Your task to perform on an android device: toggle location history Image 0: 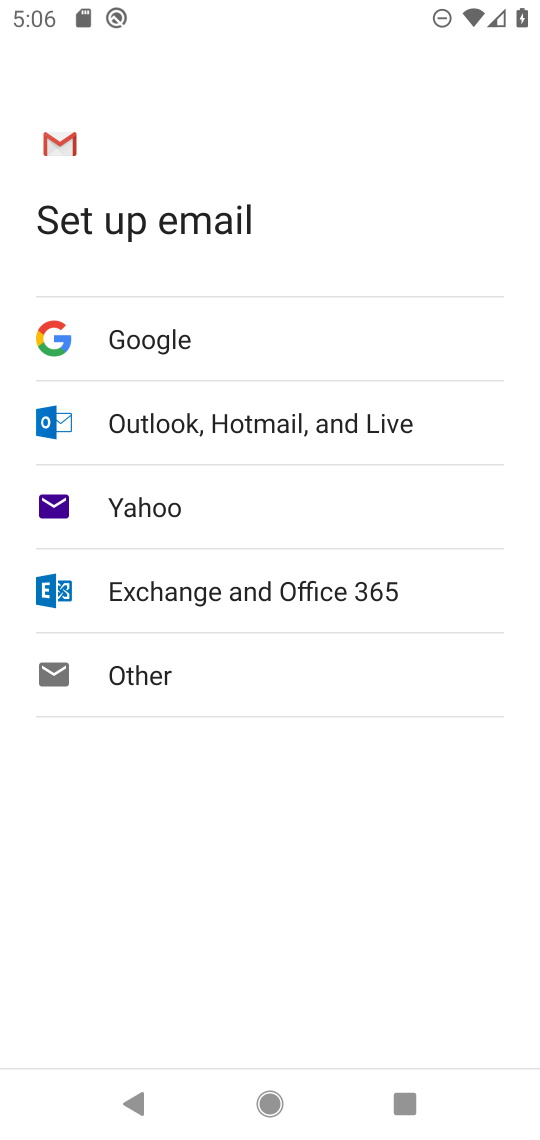
Step 0: press home button
Your task to perform on an android device: toggle location history Image 1: 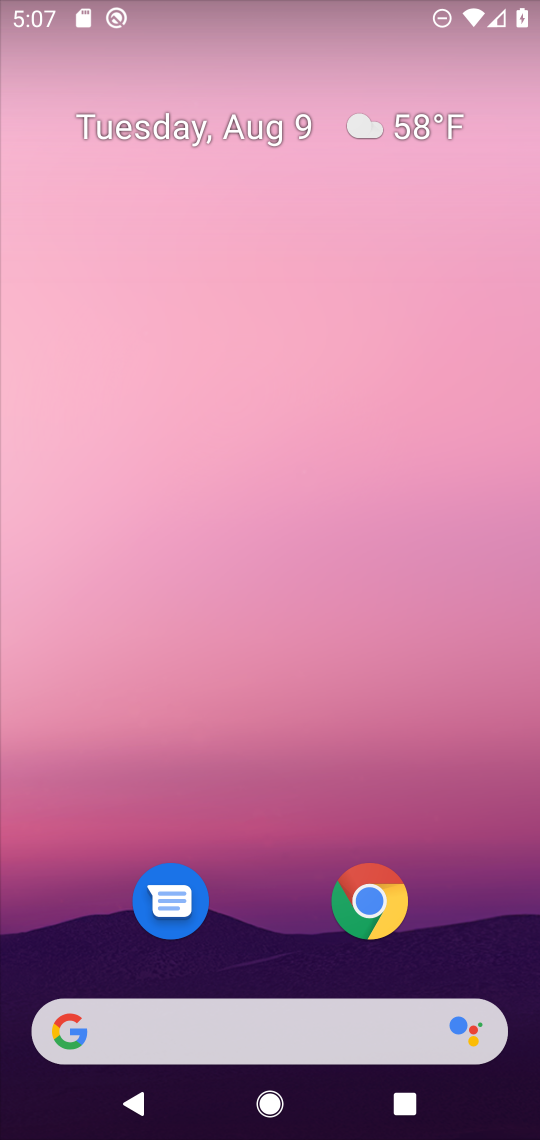
Step 1: drag from (242, 947) to (335, 295)
Your task to perform on an android device: toggle location history Image 2: 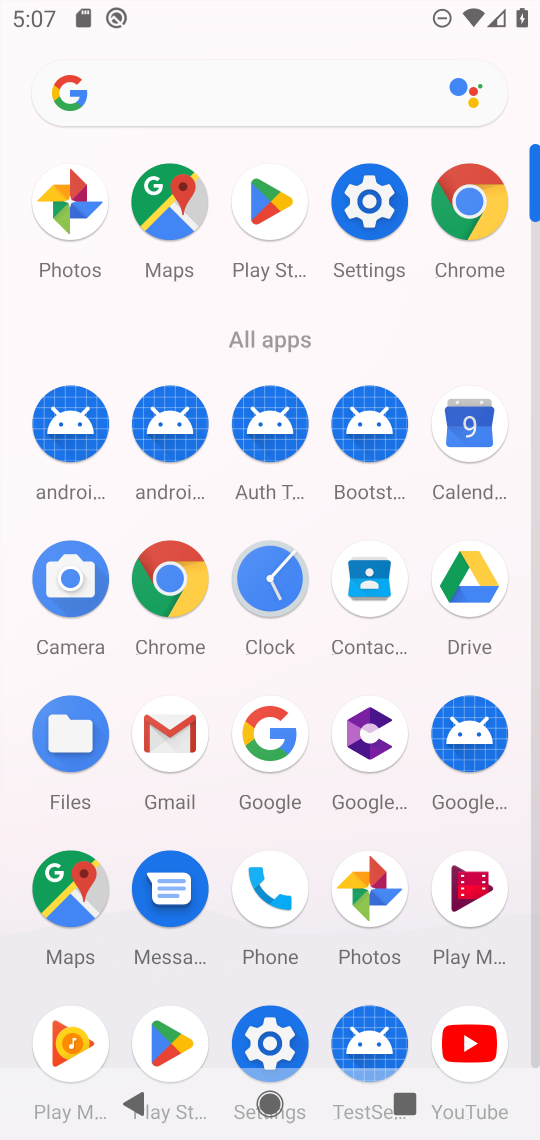
Step 2: drag from (305, 1018) to (353, 301)
Your task to perform on an android device: toggle location history Image 3: 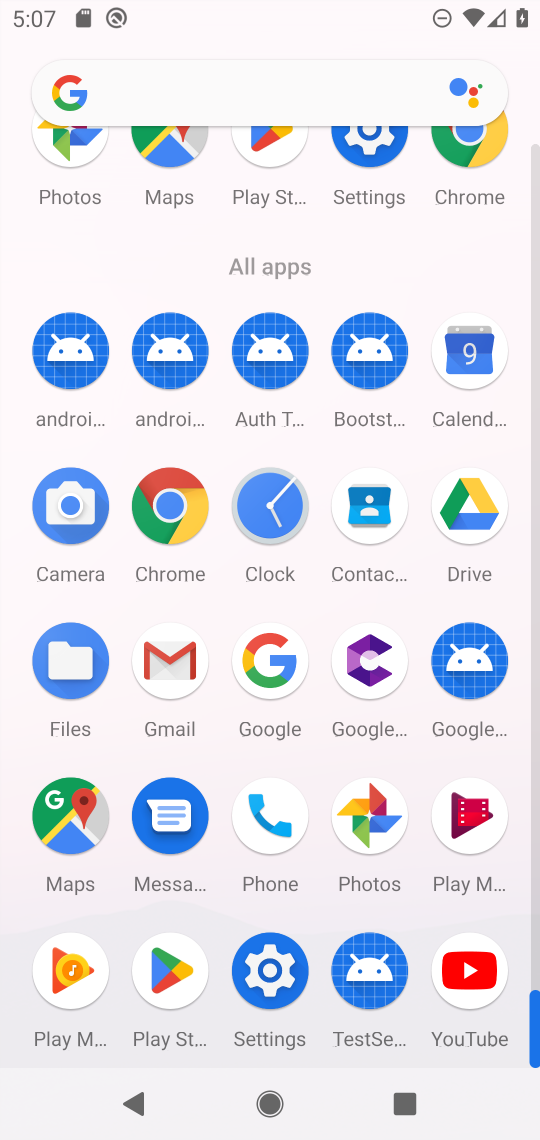
Step 3: click (53, 823)
Your task to perform on an android device: toggle location history Image 4: 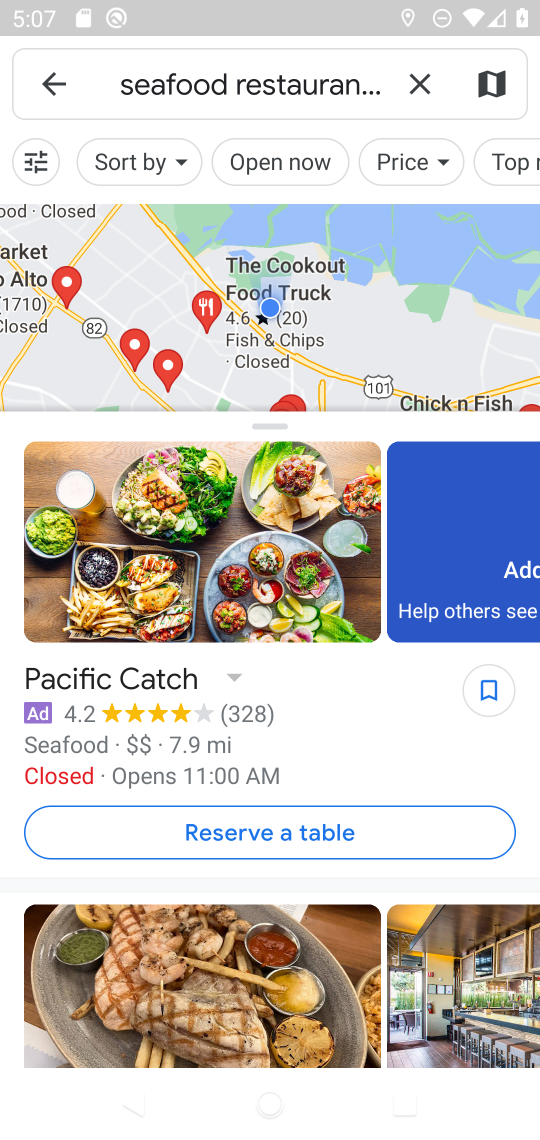
Step 4: click (421, 77)
Your task to perform on an android device: toggle location history Image 5: 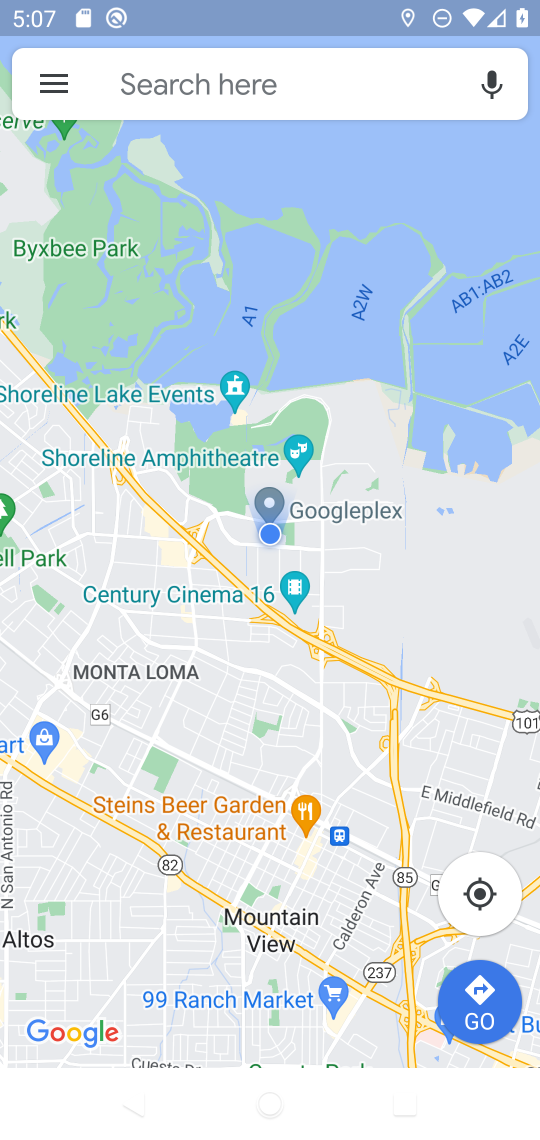
Step 5: click (43, 76)
Your task to perform on an android device: toggle location history Image 6: 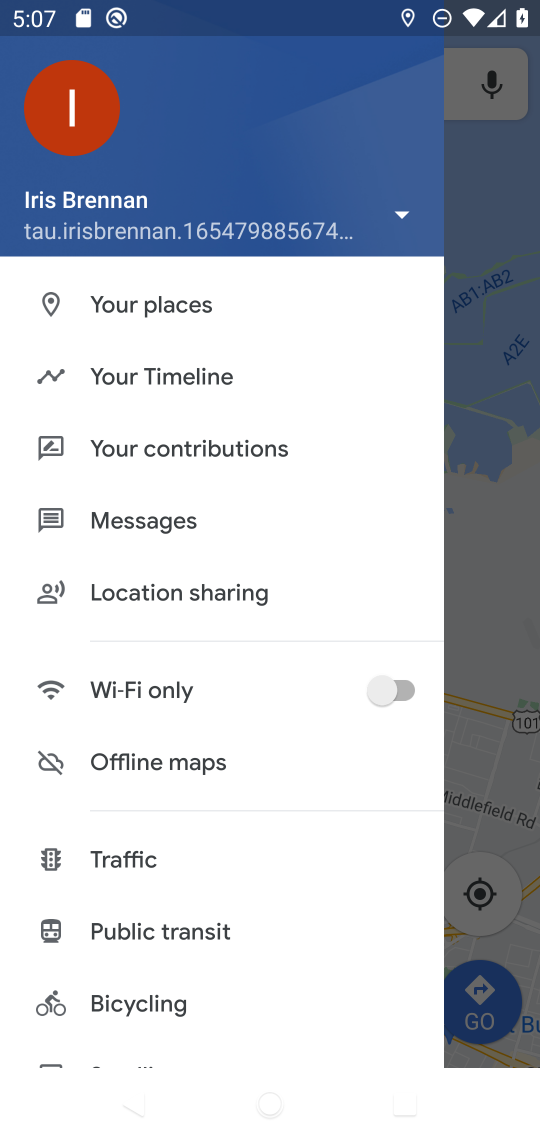
Step 6: click (184, 374)
Your task to perform on an android device: toggle location history Image 7: 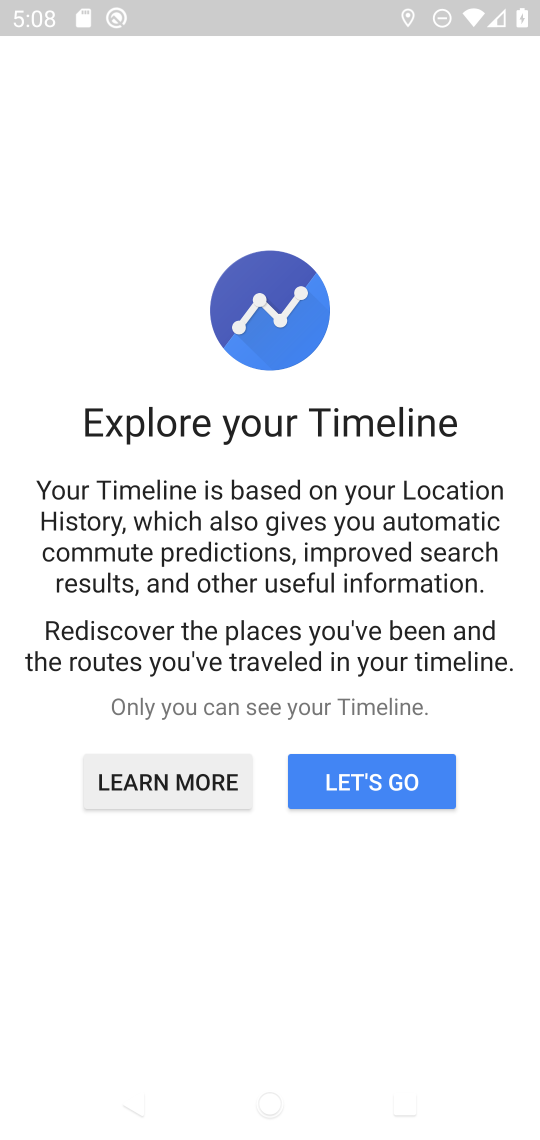
Step 7: click (411, 794)
Your task to perform on an android device: toggle location history Image 8: 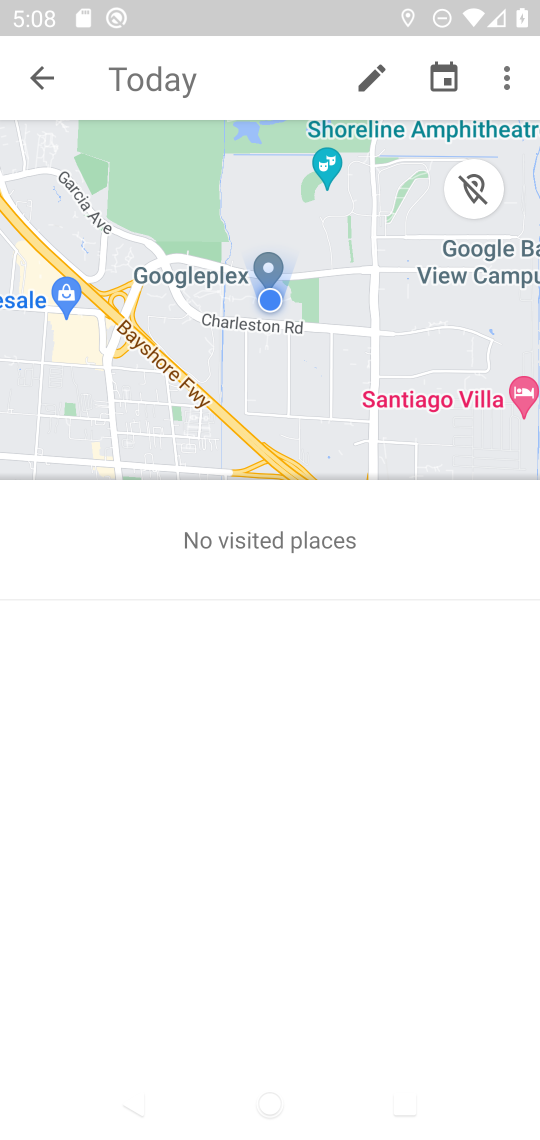
Step 8: click (509, 79)
Your task to perform on an android device: toggle location history Image 9: 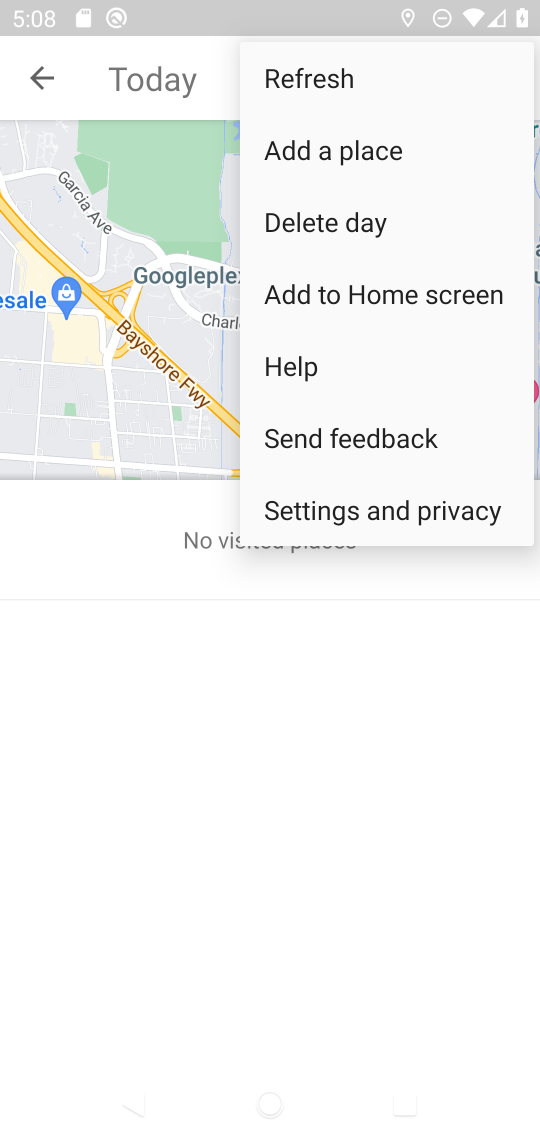
Step 9: click (410, 504)
Your task to perform on an android device: toggle location history Image 10: 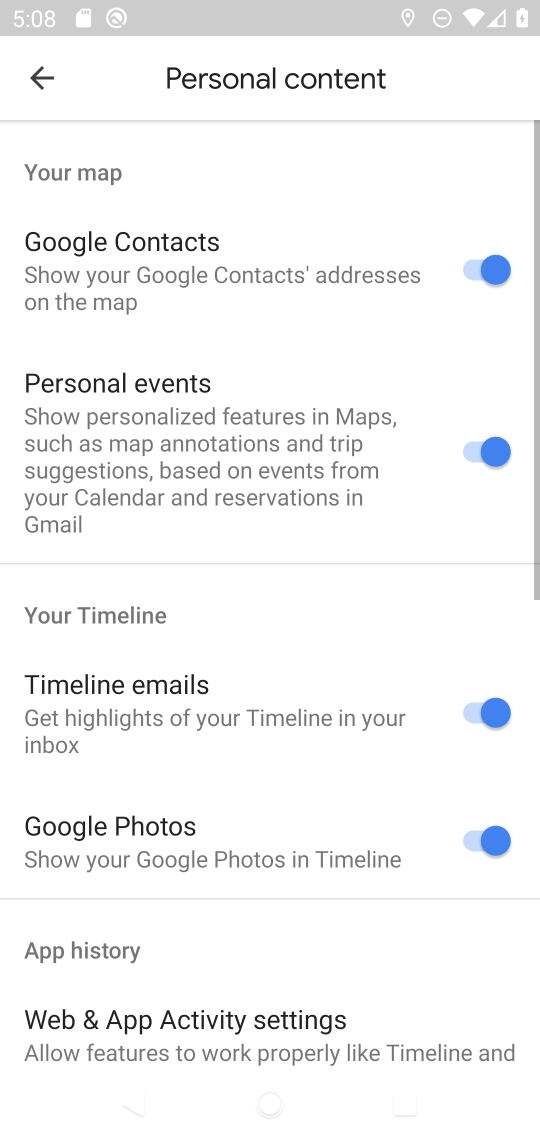
Step 10: drag from (184, 854) to (209, 287)
Your task to perform on an android device: toggle location history Image 11: 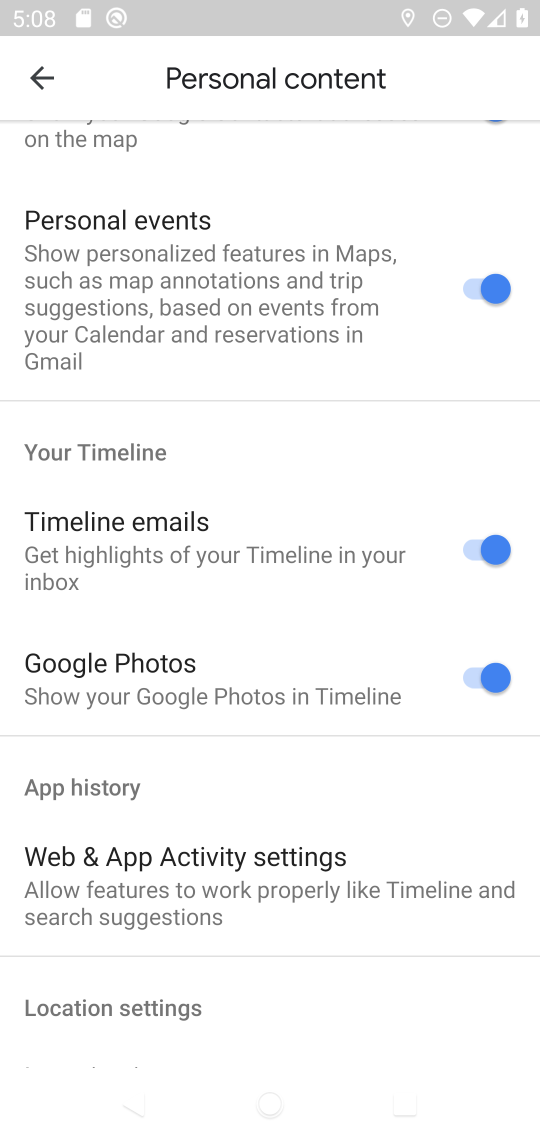
Step 11: drag from (175, 833) to (199, 379)
Your task to perform on an android device: toggle location history Image 12: 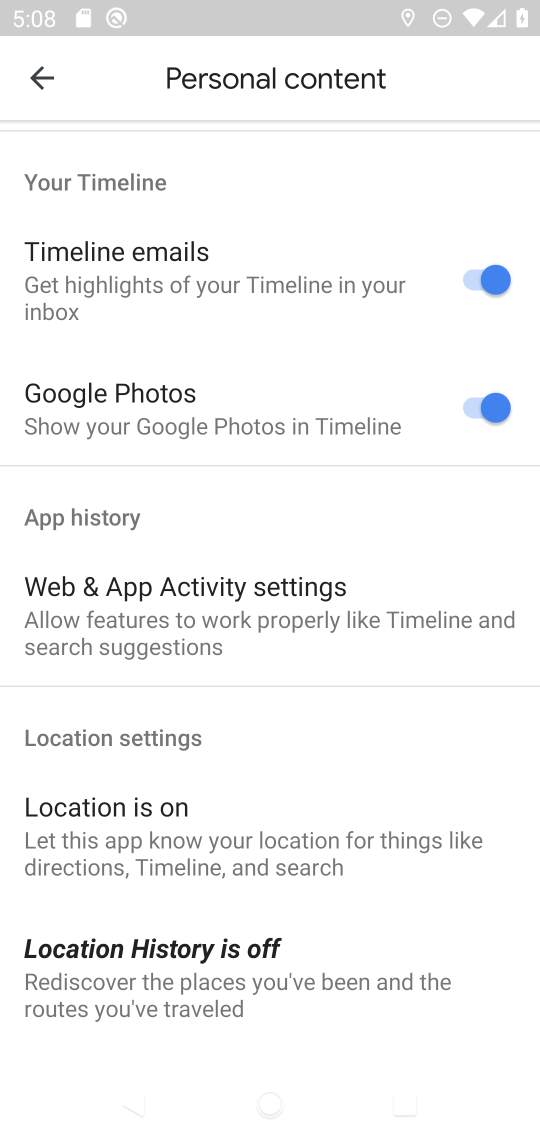
Step 12: click (188, 984)
Your task to perform on an android device: toggle location history Image 13: 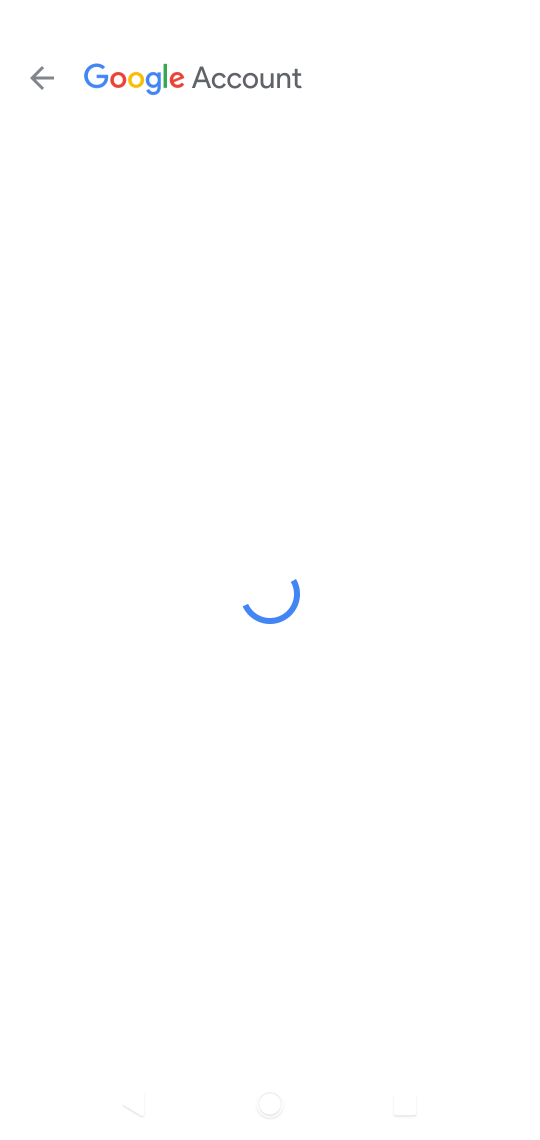
Step 13: click (188, 984)
Your task to perform on an android device: toggle location history Image 14: 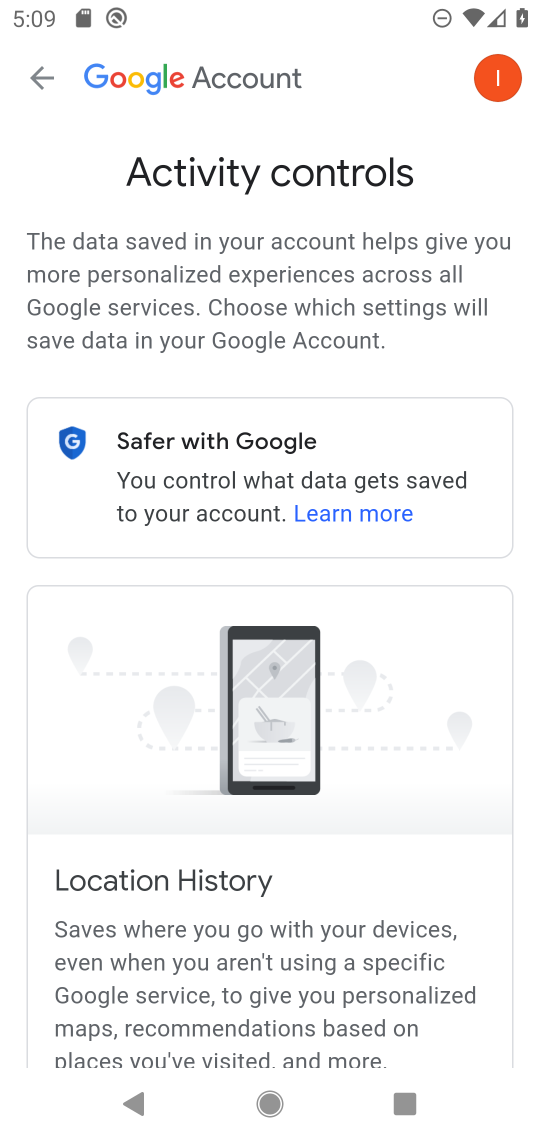
Step 14: drag from (291, 866) to (342, 326)
Your task to perform on an android device: toggle location history Image 15: 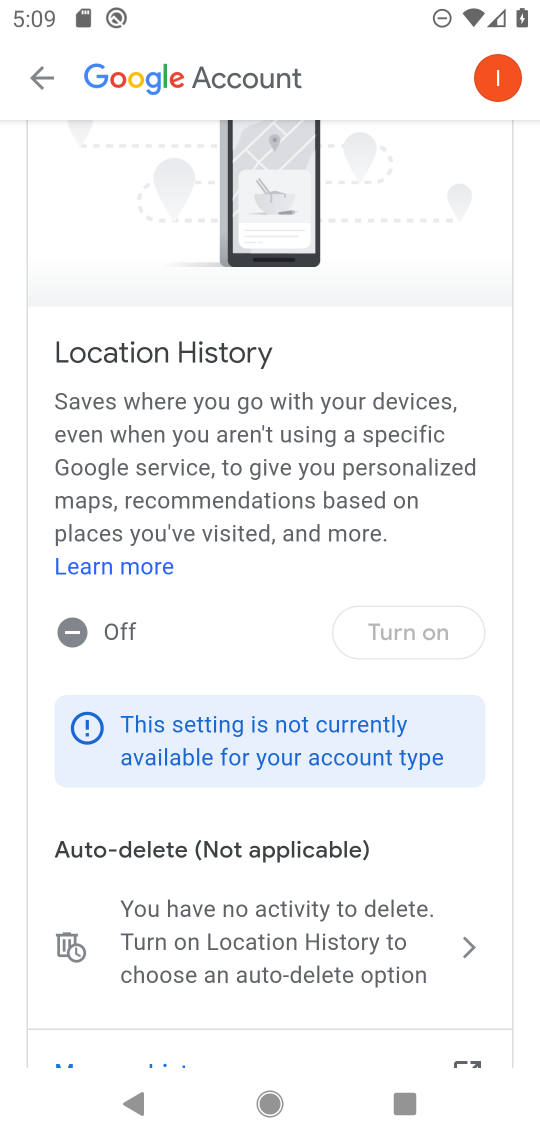
Step 15: drag from (301, 929) to (357, 383)
Your task to perform on an android device: toggle location history Image 16: 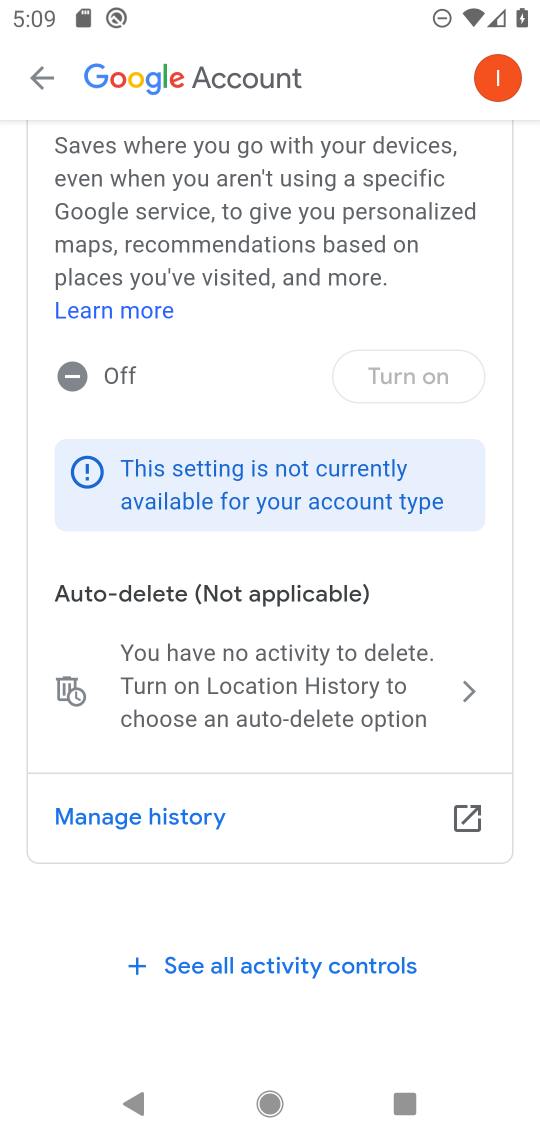
Step 16: click (445, 371)
Your task to perform on an android device: toggle location history Image 17: 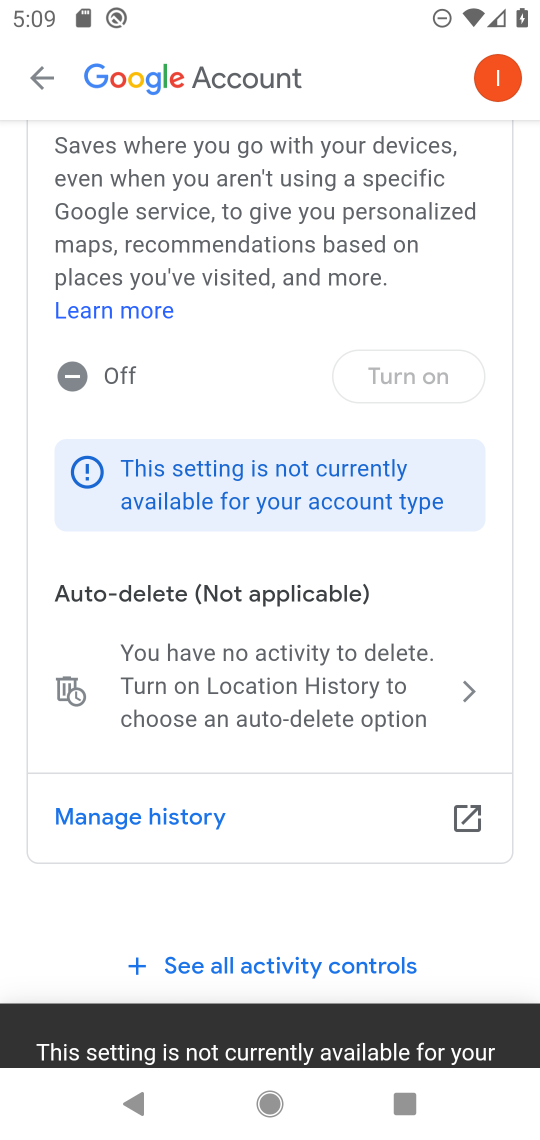
Step 17: click (413, 361)
Your task to perform on an android device: toggle location history Image 18: 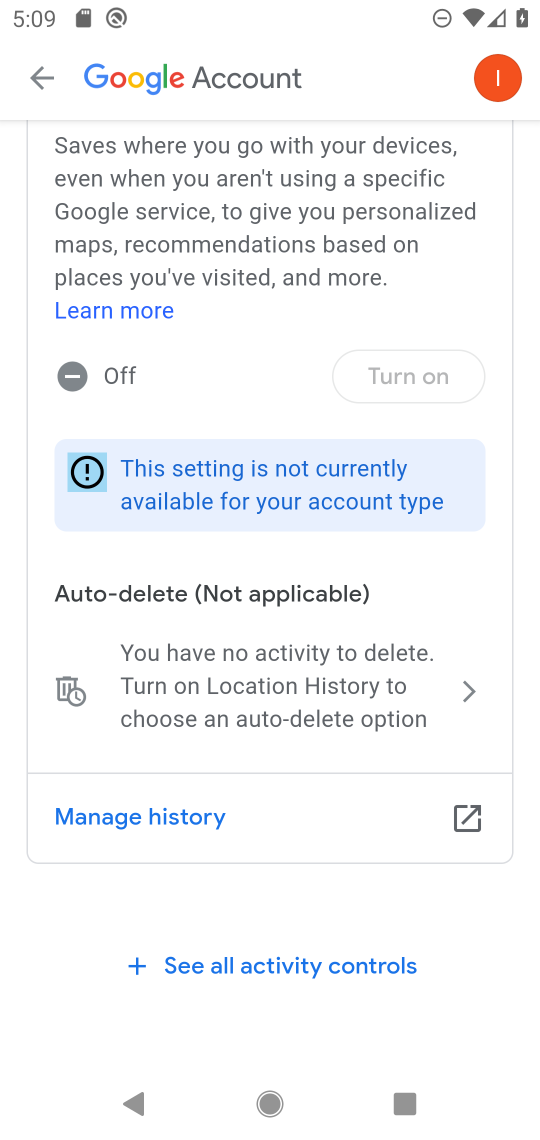
Step 18: drag from (307, 227) to (200, 930)
Your task to perform on an android device: toggle location history Image 19: 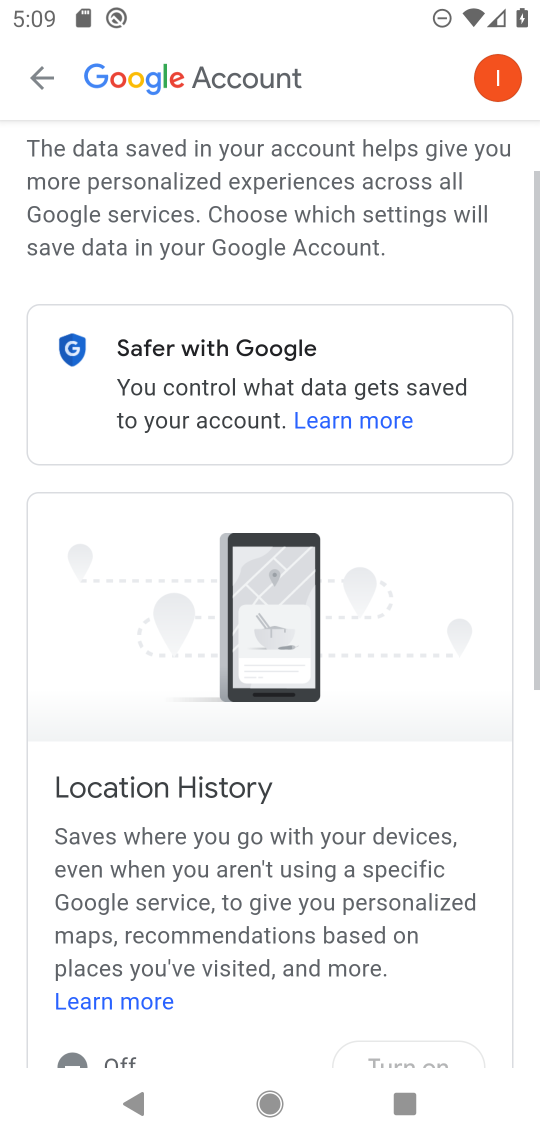
Step 19: drag from (295, 486) to (258, 790)
Your task to perform on an android device: toggle location history Image 20: 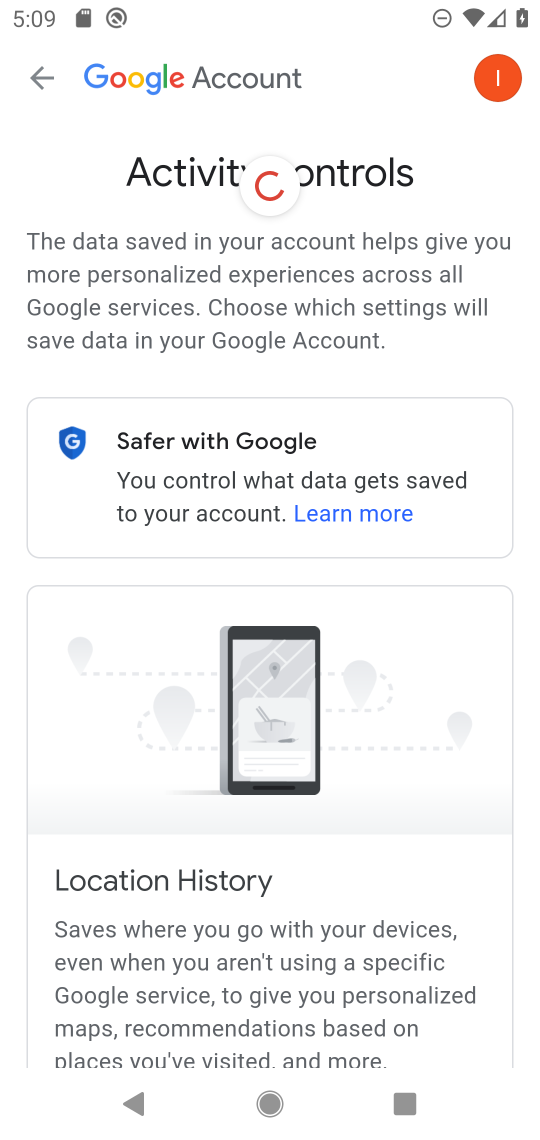
Step 20: drag from (238, 914) to (316, 479)
Your task to perform on an android device: toggle location history Image 21: 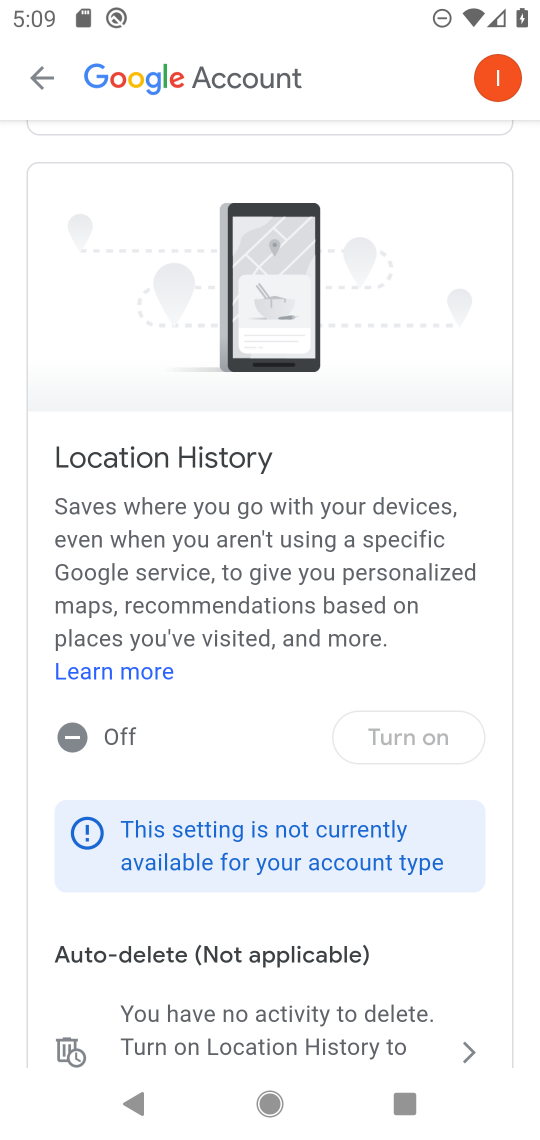
Step 21: click (435, 723)
Your task to perform on an android device: toggle location history Image 22: 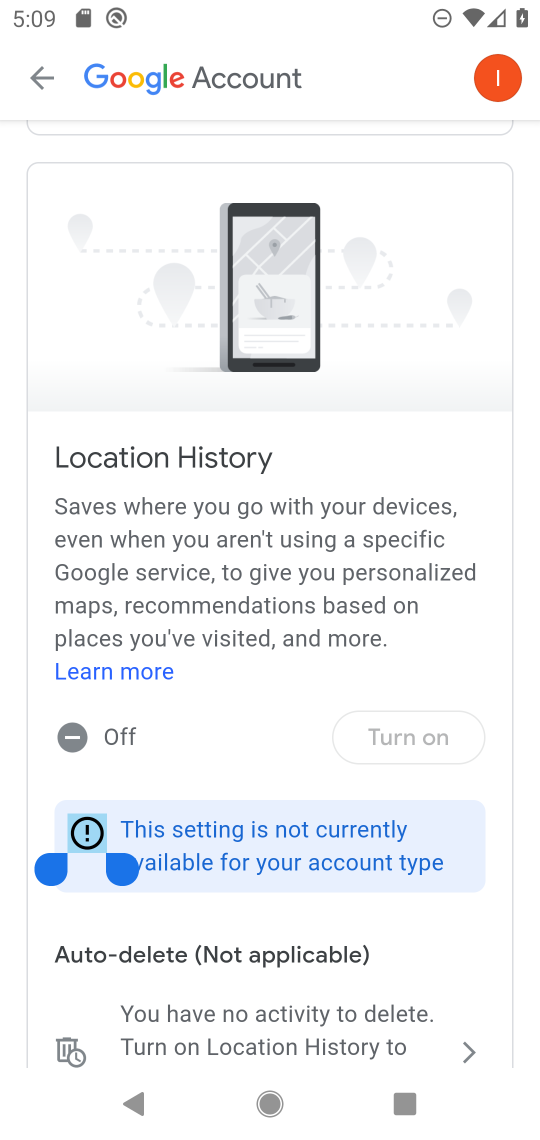
Step 22: task complete